Your task to perform on an android device: turn off wifi Image 0: 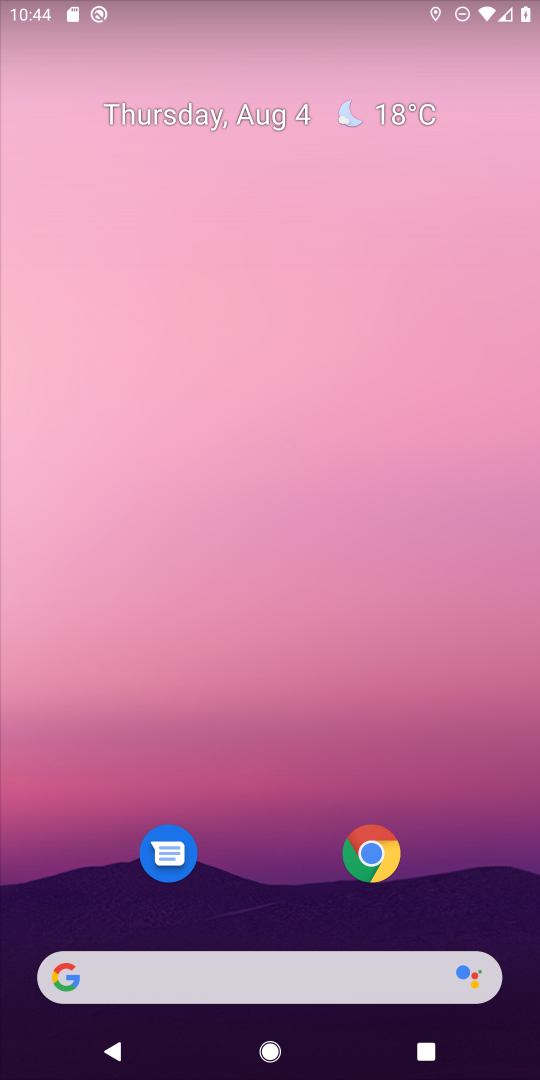
Step 0: drag from (293, 932) to (292, 139)
Your task to perform on an android device: turn off wifi Image 1: 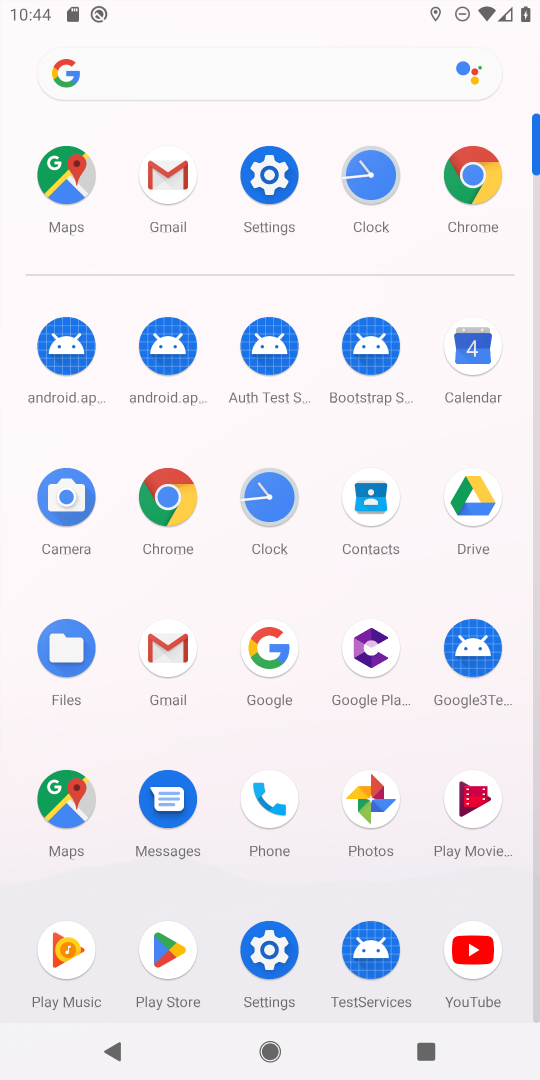
Step 1: click (274, 193)
Your task to perform on an android device: turn off wifi Image 2: 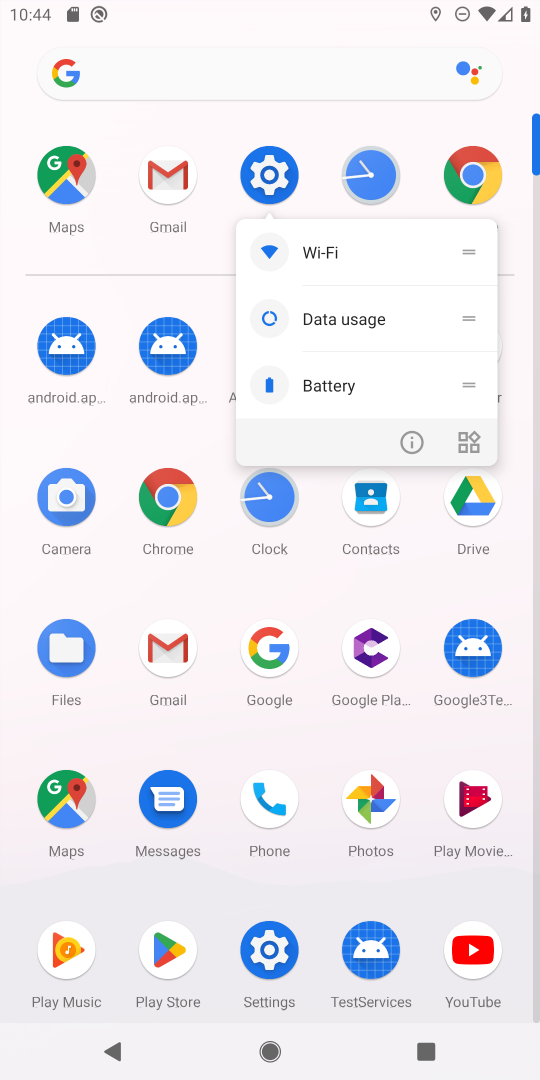
Step 2: click (271, 183)
Your task to perform on an android device: turn off wifi Image 3: 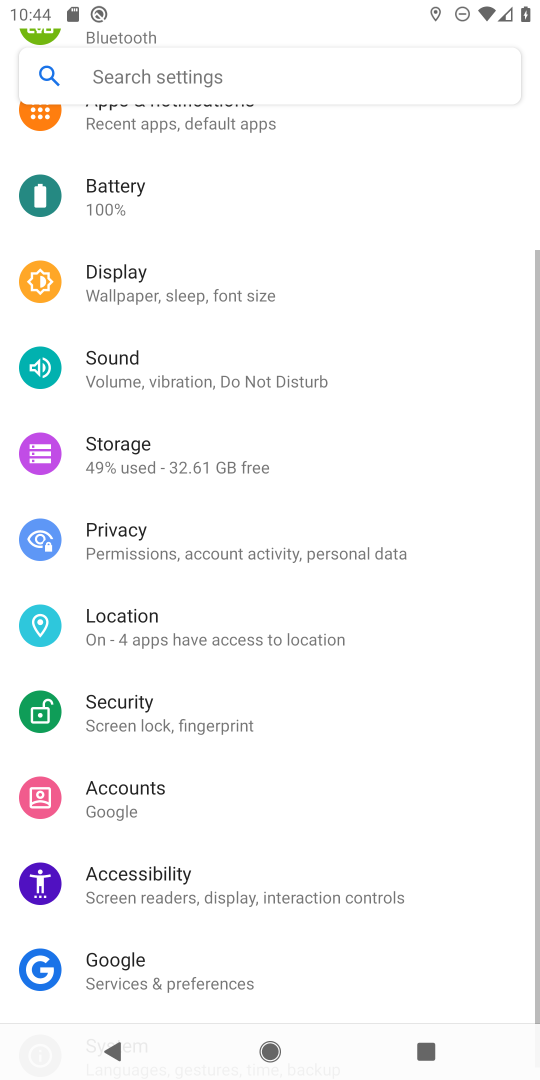
Step 3: drag from (152, 183) to (204, 1019)
Your task to perform on an android device: turn off wifi Image 4: 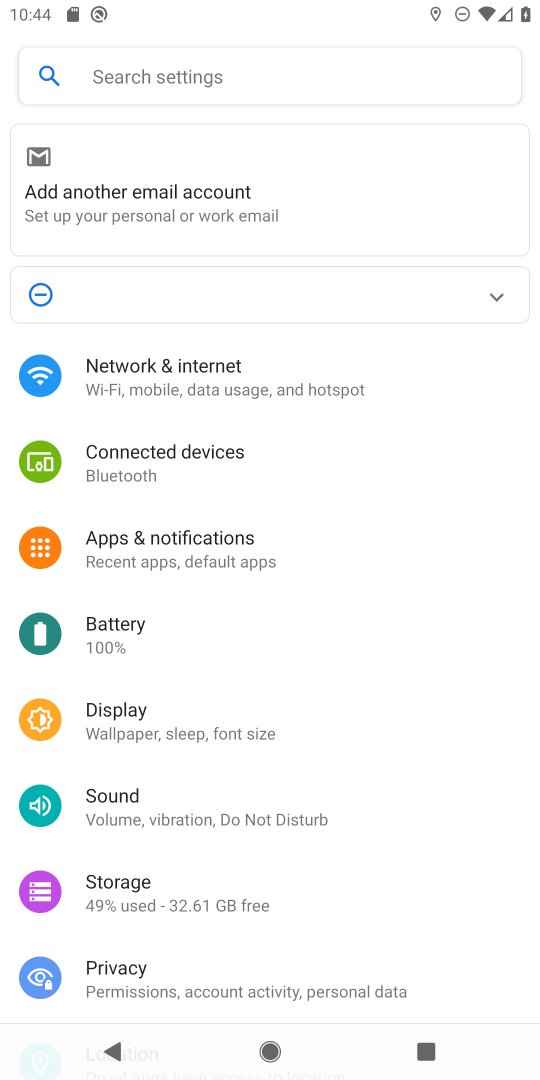
Step 4: click (199, 396)
Your task to perform on an android device: turn off wifi Image 5: 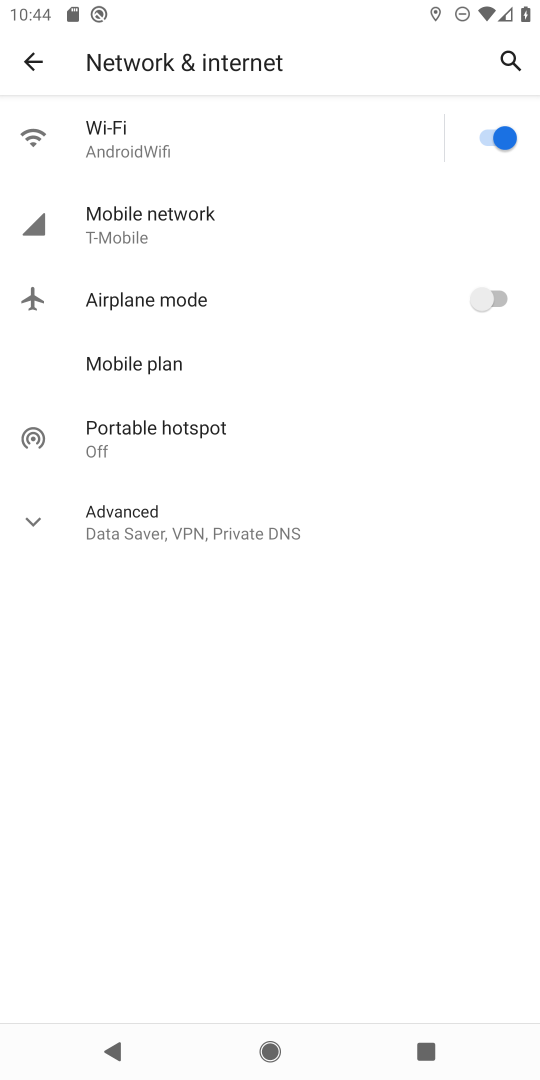
Step 5: click (497, 132)
Your task to perform on an android device: turn off wifi Image 6: 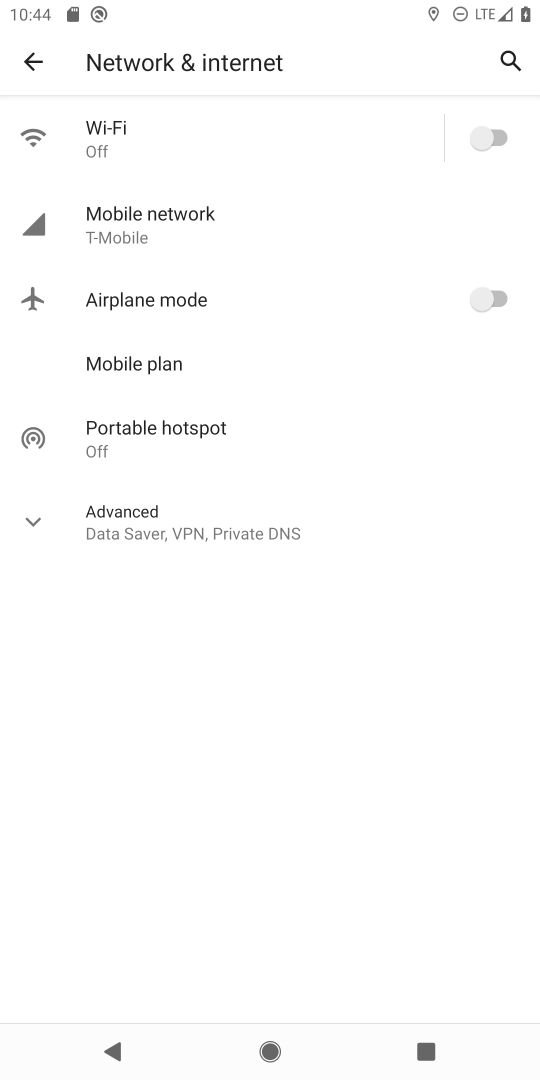
Step 6: task complete